Your task to perform on an android device: Go to ESPN.com Image 0: 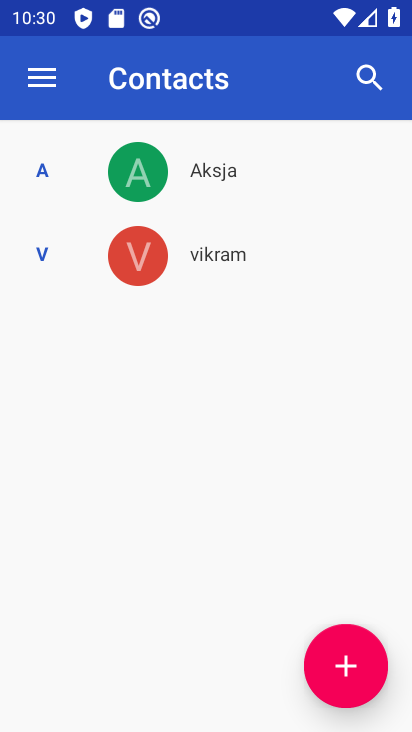
Step 0: press home button
Your task to perform on an android device: Go to ESPN.com Image 1: 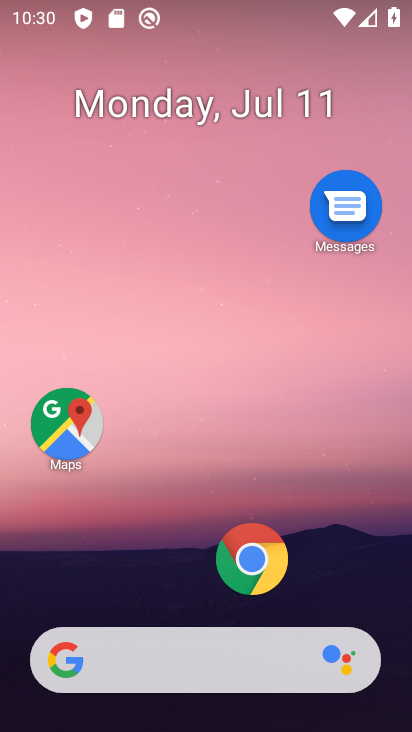
Step 1: drag from (377, 575) to (379, 120)
Your task to perform on an android device: Go to ESPN.com Image 2: 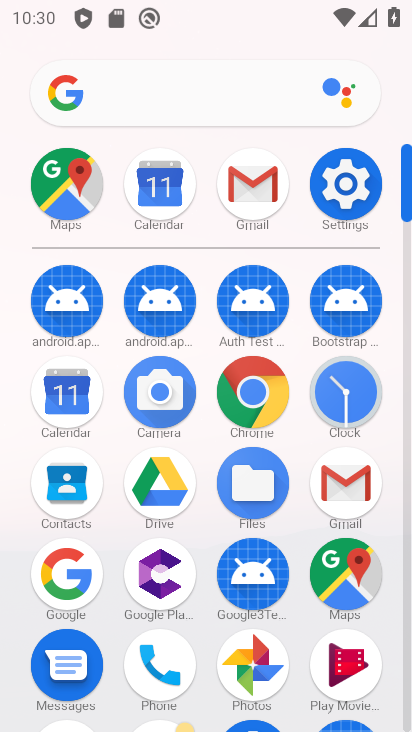
Step 2: click (262, 402)
Your task to perform on an android device: Go to ESPN.com Image 3: 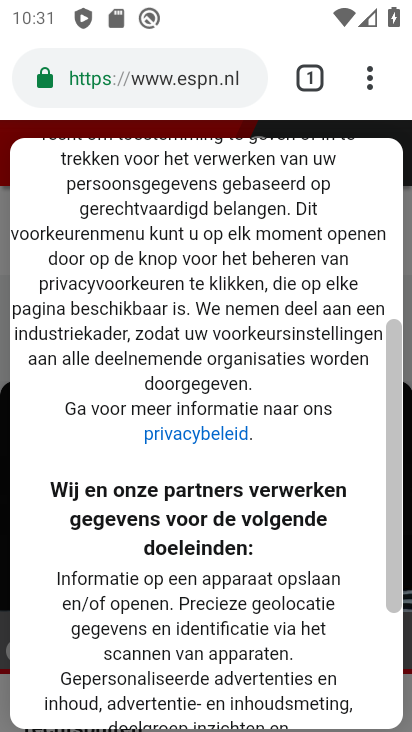
Step 3: task complete